Your task to perform on an android device: Search for asus zenbook on bestbuy, select the first entry, and add it to the cart. Image 0: 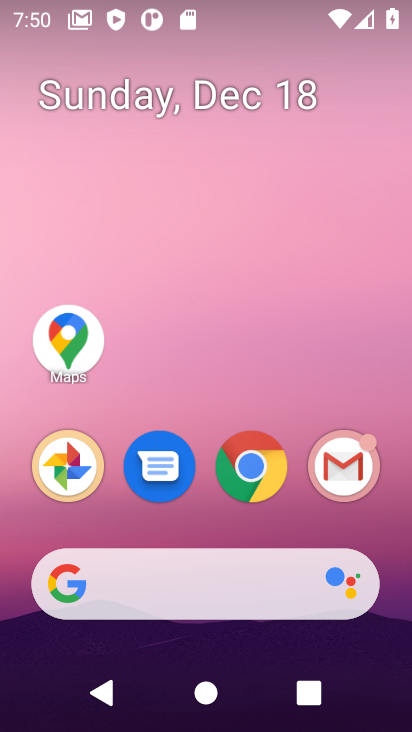
Step 0: click (251, 456)
Your task to perform on an android device: Search for asus zenbook on bestbuy, select the first entry, and add it to the cart. Image 1: 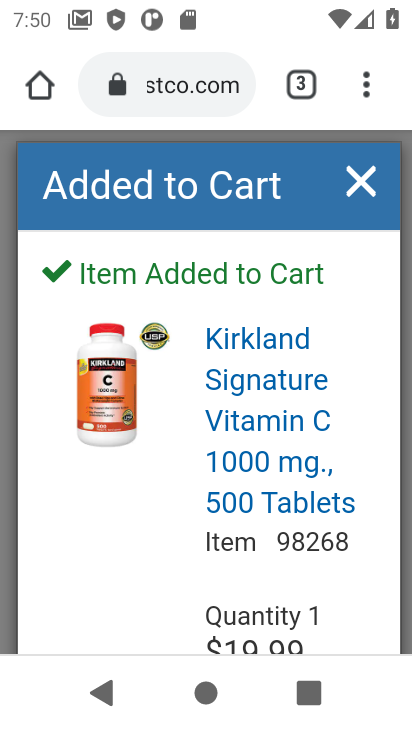
Step 1: click (202, 87)
Your task to perform on an android device: Search for asus zenbook on bestbuy, select the first entry, and add it to the cart. Image 2: 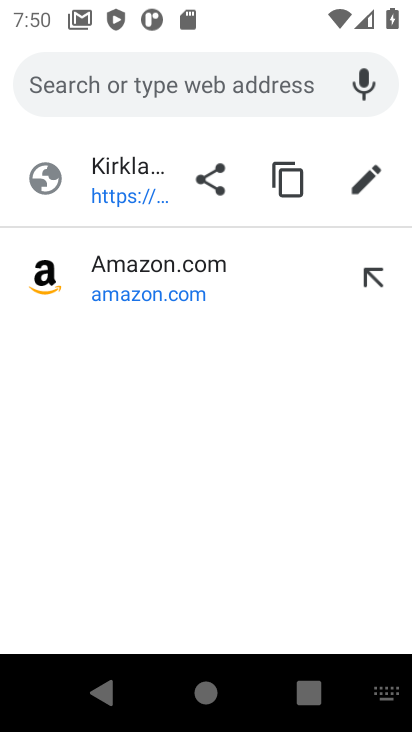
Step 2: type "bestbuy"
Your task to perform on an android device: Search for asus zenbook on bestbuy, select the first entry, and add it to the cart. Image 3: 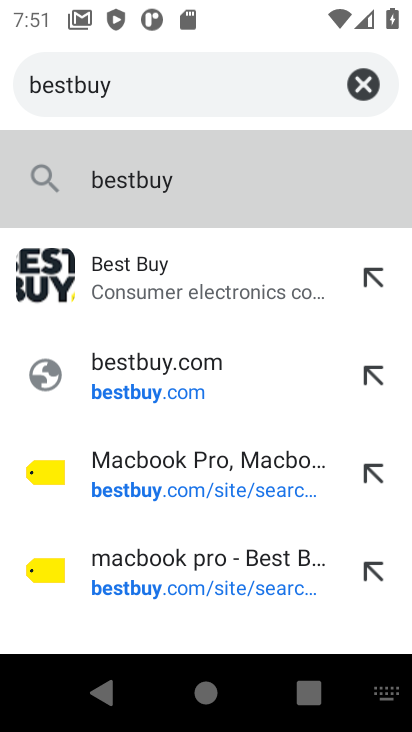
Step 3: click (135, 278)
Your task to perform on an android device: Search for asus zenbook on bestbuy, select the first entry, and add it to the cart. Image 4: 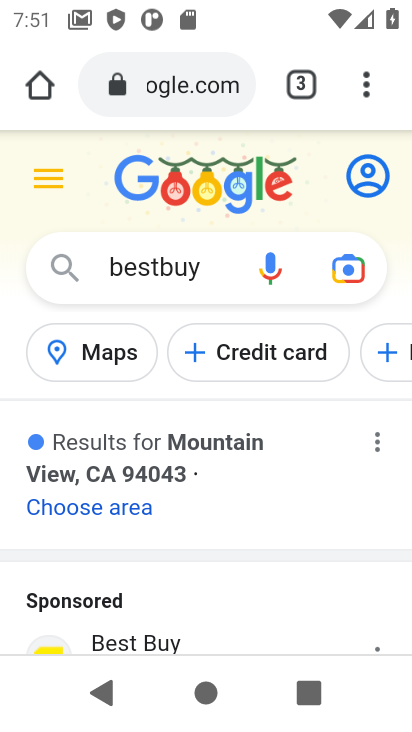
Step 4: drag from (284, 605) to (222, 151)
Your task to perform on an android device: Search for asus zenbook on bestbuy, select the first entry, and add it to the cart. Image 5: 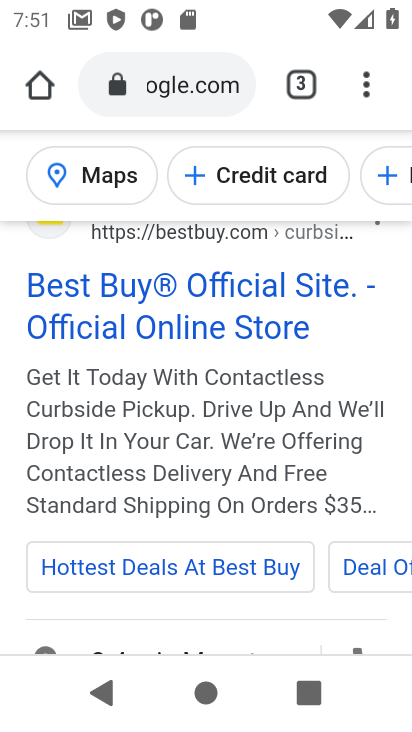
Step 5: click (222, 314)
Your task to perform on an android device: Search for asus zenbook on bestbuy, select the first entry, and add it to the cart. Image 6: 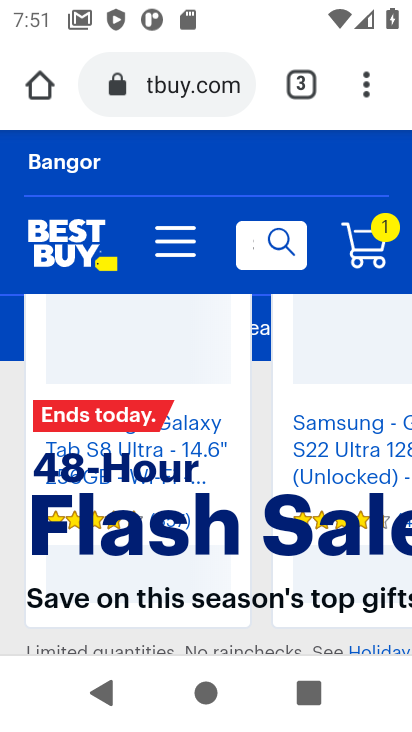
Step 6: click (273, 240)
Your task to perform on an android device: Search for asus zenbook on bestbuy, select the first entry, and add it to the cart. Image 7: 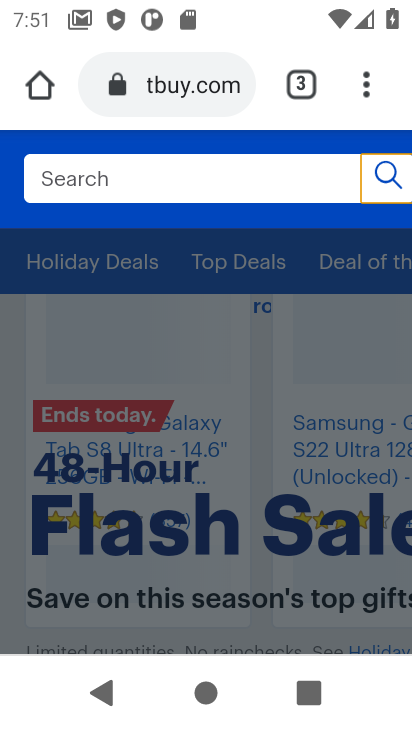
Step 7: click (225, 178)
Your task to perform on an android device: Search for asus zenbook on bestbuy, select the first entry, and add it to the cart. Image 8: 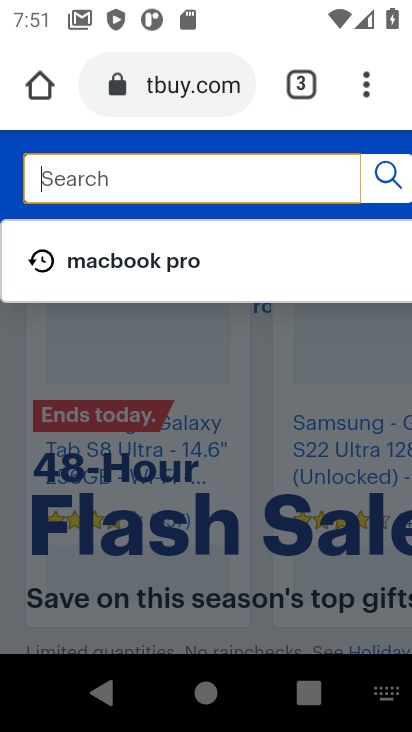
Step 8: type "asus zenbook"
Your task to perform on an android device: Search for asus zenbook on bestbuy, select the first entry, and add it to the cart. Image 9: 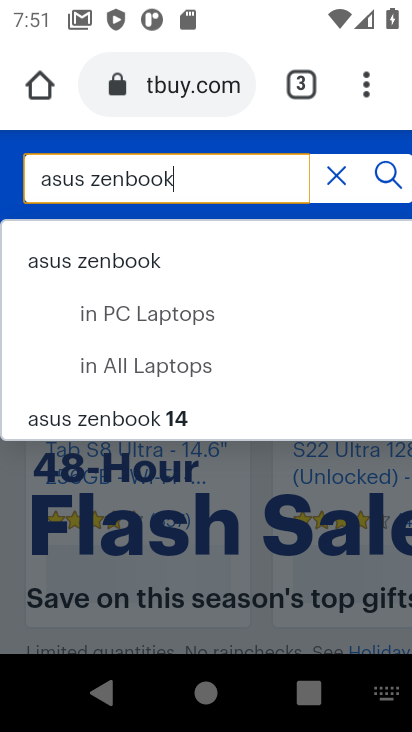
Step 9: click (383, 177)
Your task to perform on an android device: Search for asus zenbook on bestbuy, select the first entry, and add it to the cart. Image 10: 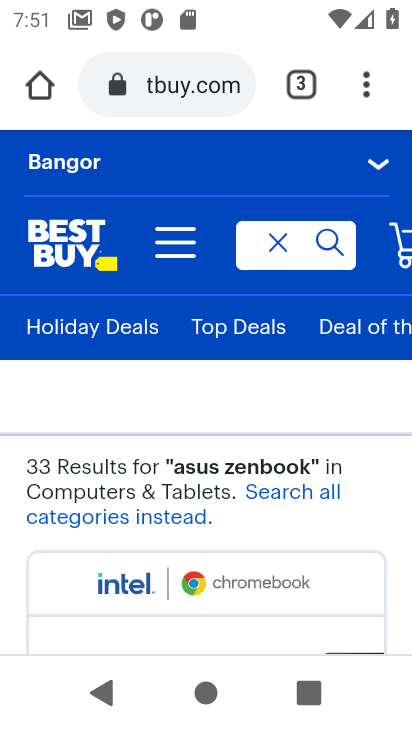
Step 10: drag from (277, 558) to (237, 121)
Your task to perform on an android device: Search for asus zenbook on bestbuy, select the first entry, and add it to the cart. Image 11: 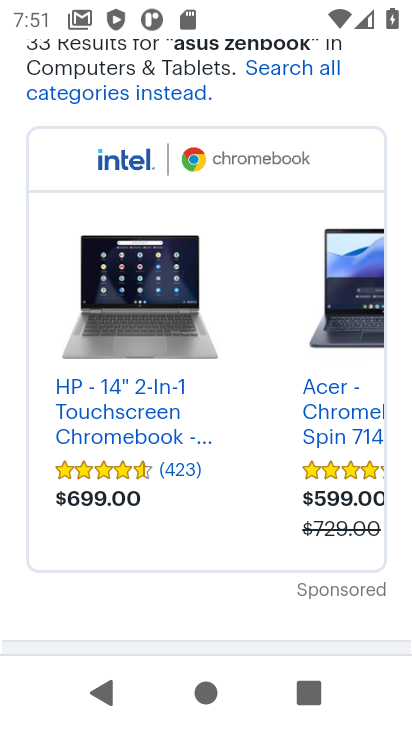
Step 11: drag from (212, 596) to (185, 86)
Your task to perform on an android device: Search for asus zenbook on bestbuy, select the first entry, and add it to the cart. Image 12: 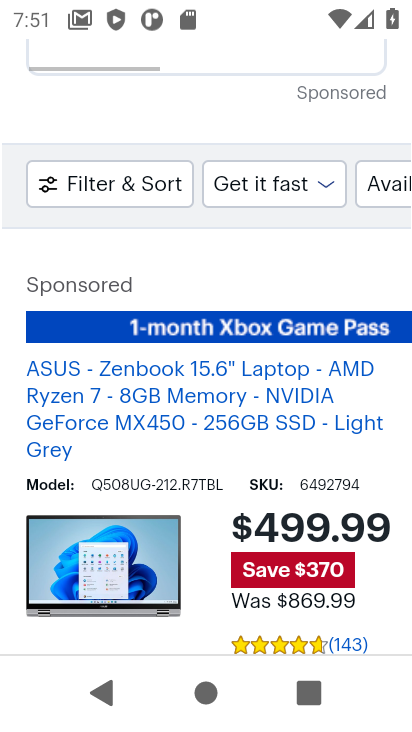
Step 12: click (235, 430)
Your task to perform on an android device: Search for asus zenbook on bestbuy, select the first entry, and add it to the cart. Image 13: 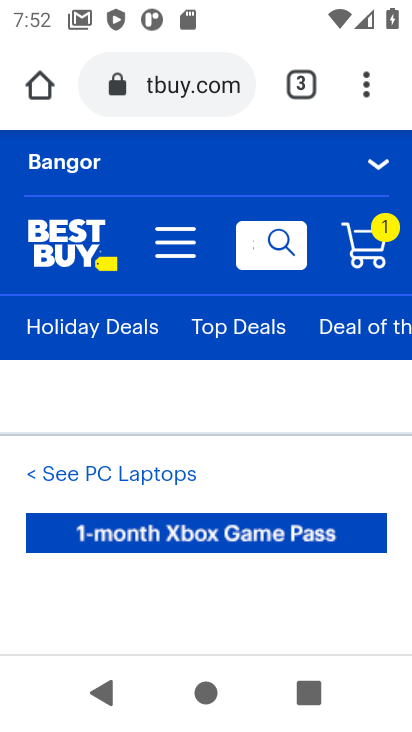
Step 13: drag from (221, 589) to (227, 205)
Your task to perform on an android device: Search for asus zenbook on bestbuy, select the first entry, and add it to the cart. Image 14: 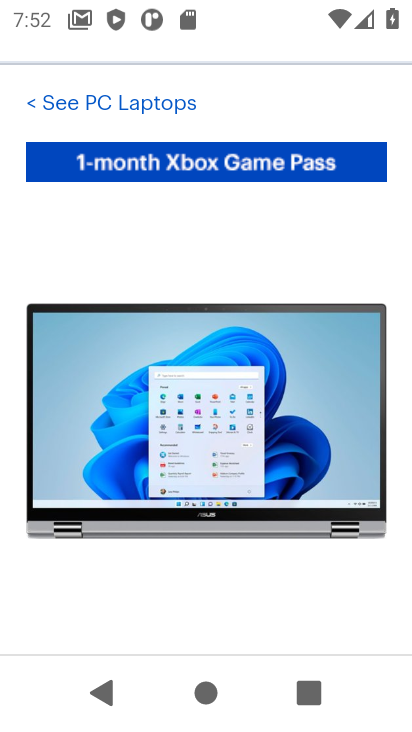
Step 14: drag from (210, 562) to (193, 212)
Your task to perform on an android device: Search for asus zenbook on bestbuy, select the first entry, and add it to the cart. Image 15: 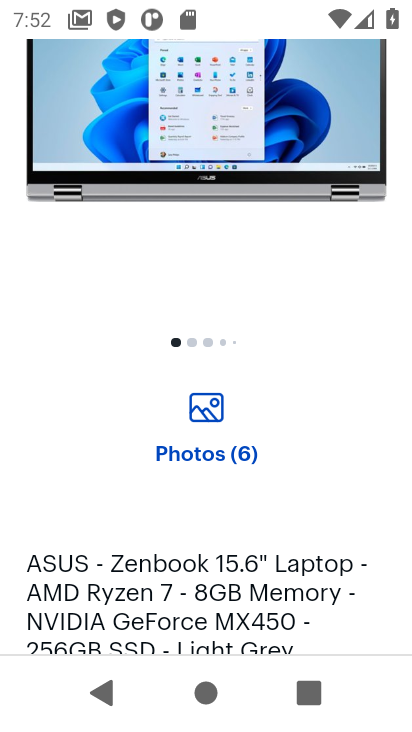
Step 15: drag from (203, 618) to (194, 406)
Your task to perform on an android device: Search for asus zenbook on bestbuy, select the first entry, and add it to the cart. Image 16: 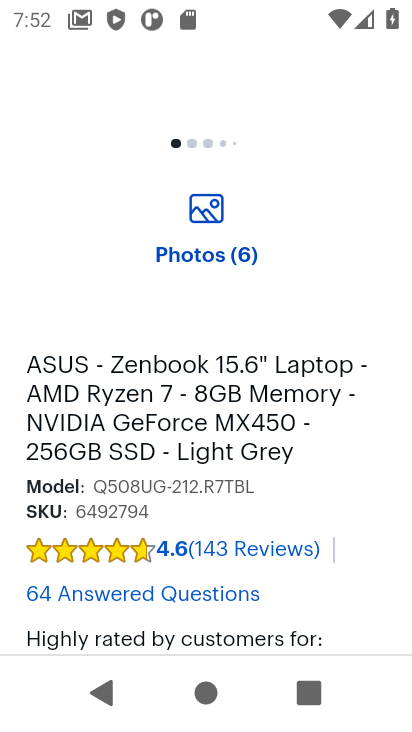
Step 16: drag from (296, 543) to (271, 330)
Your task to perform on an android device: Search for asus zenbook on bestbuy, select the first entry, and add it to the cart. Image 17: 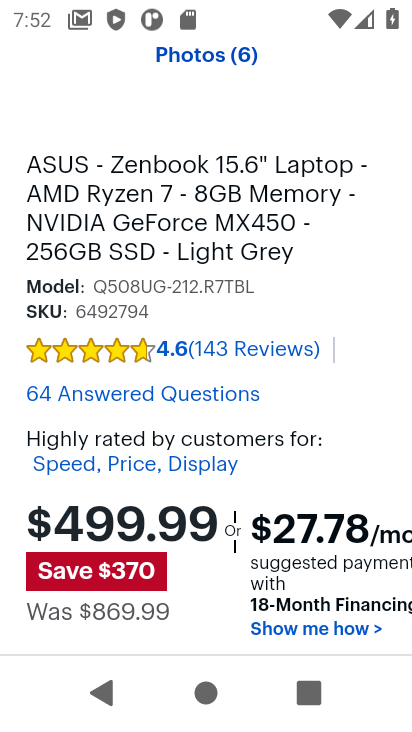
Step 17: drag from (203, 596) to (199, 224)
Your task to perform on an android device: Search for asus zenbook on bestbuy, select the first entry, and add it to the cart. Image 18: 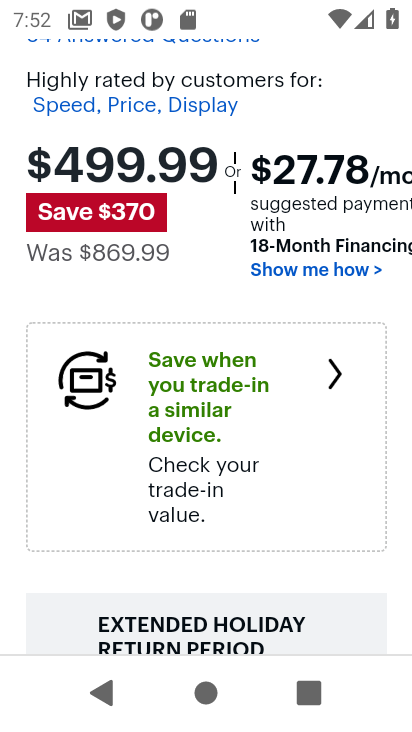
Step 18: drag from (232, 572) to (224, 218)
Your task to perform on an android device: Search for asus zenbook on bestbuy, select the first entry, and add it to the cart. Image 19: 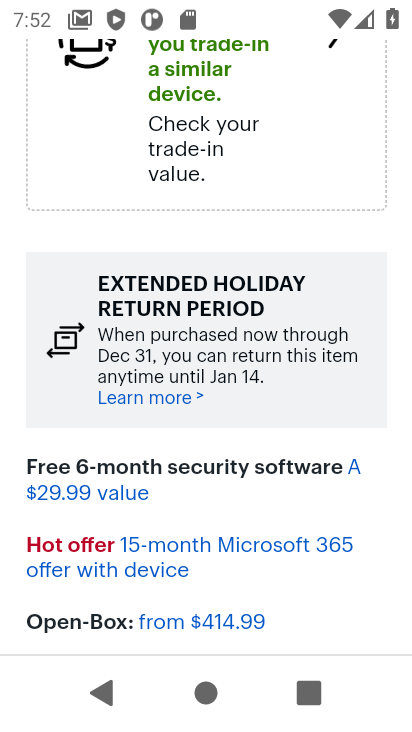
Step 19: drag from (231, 610) to (206, 135)
Your task to perform on an android device: Search for asus zenbook on bestbuy, select the first entry, and add it to the cart. Image 20: 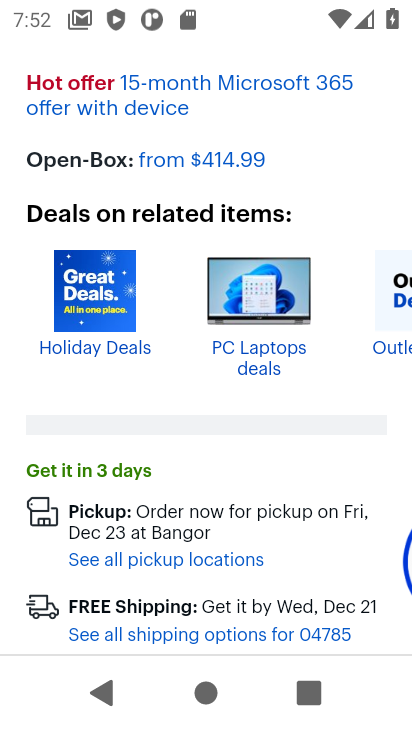
Step 20: drag from (169, 523) to (191, 301)
Your task to perform on an android device: Search for asus zenbook on bestbuy, select the first entry, and add it to the cart. Image 21: 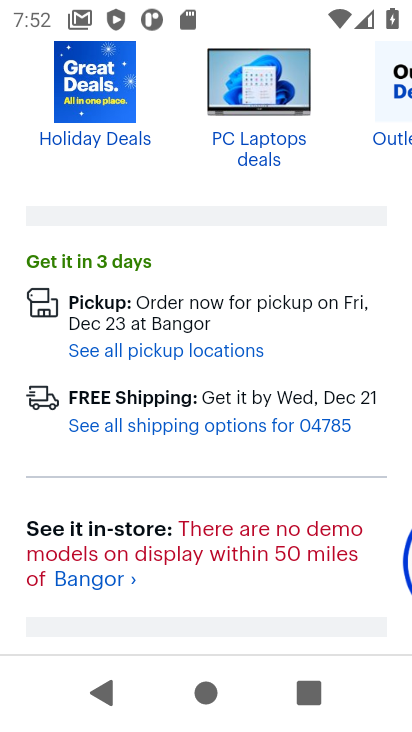
Step 21: drag from (236, 590) to (218, 400)
Your task to perform on an android device: Search for asus zenbook on bestbuy, select the first entry, and add it to the cart. Image 22: 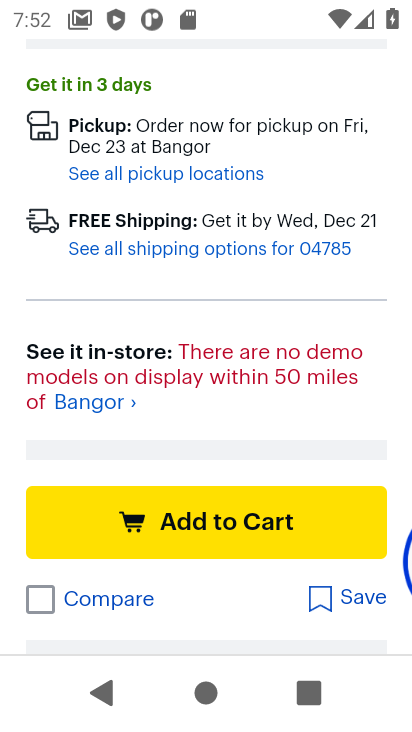
Step 22: click (202, 516)
Your task to perform on an android device: Search for asus zenbook on bestbuy, select the first entry, and add it to the cart. Image 23: 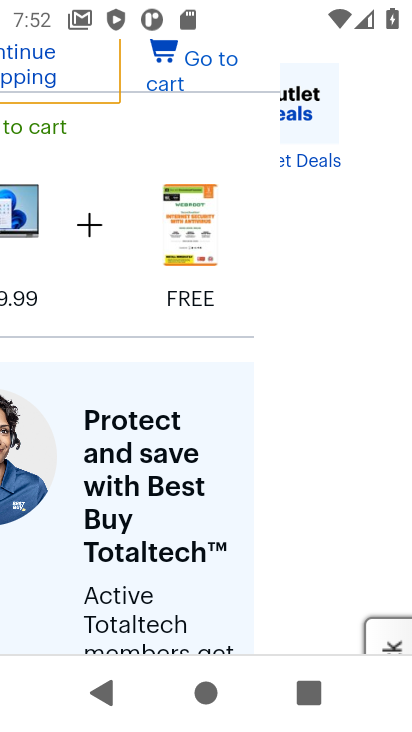
Step 23: task complete